Your task to perform on an android device: turn on location history Image 0: 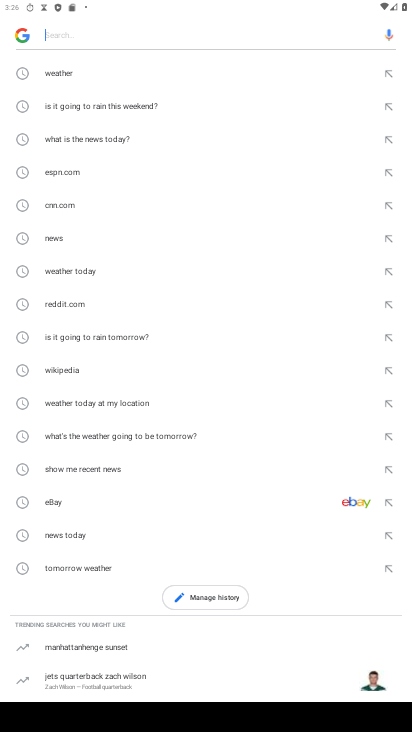
Step 0: press home button
Your task to perform on an android device: turn on location history Image 1: 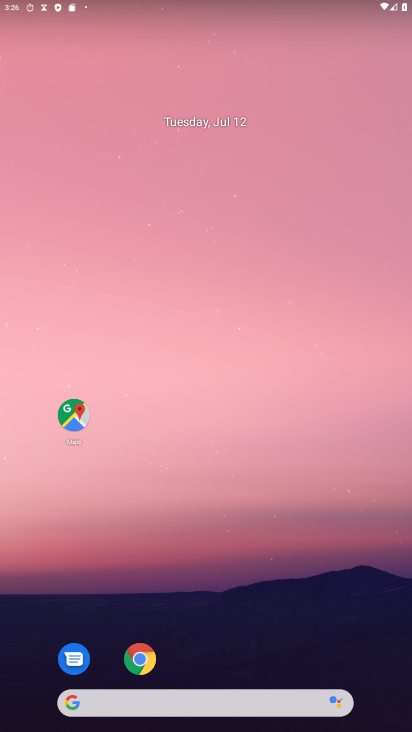
Step 1: drag from (320, 667) to (242, 212)
Your task to perform on an android device: turn on location history Image 2: 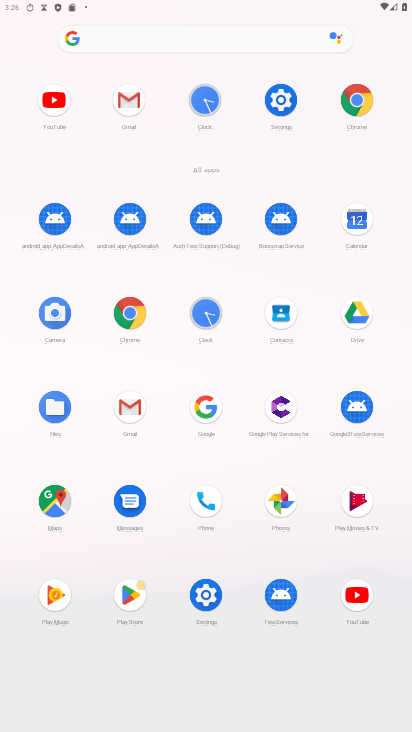
Step 2: click (62, 498)
Your task to perform on an android device: turn on location history Image 3: 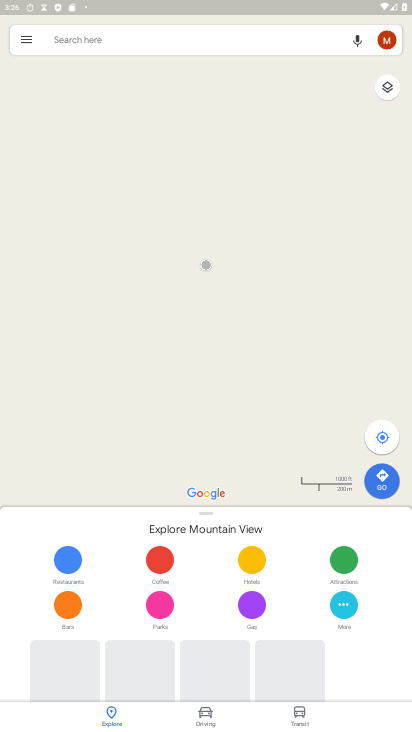
Step 3: click (27, 34)
Your task to perform on an android device: turn on location history Image 4: 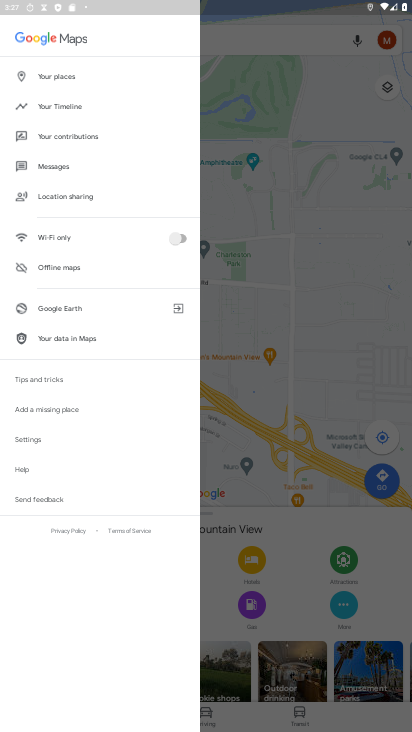
Step 4: click (97, 101)
Your task to perform on an android device: turn on location history Image 5: 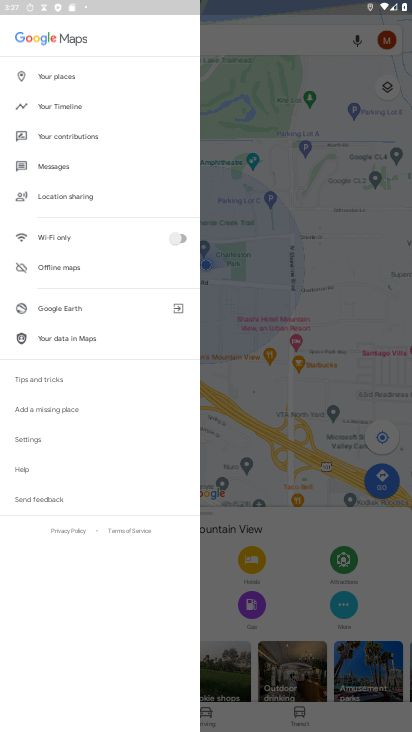
Step 5: click (64, 106)
Your task to perform on an android device: turn on location history Image 6: 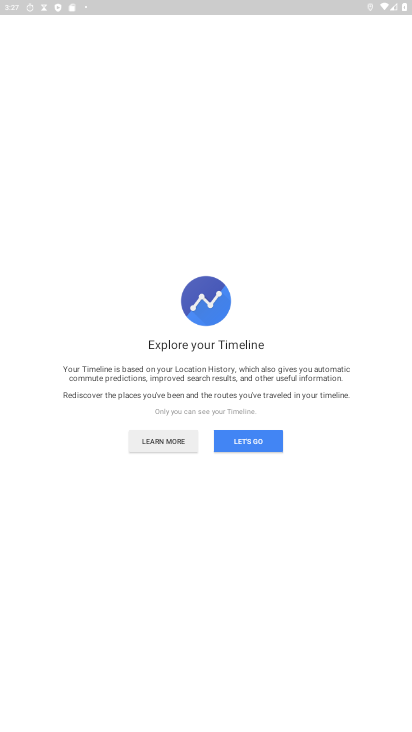
Step 6: click (265, 435)
Your task to perform on an android device: turn on location history Image 7: 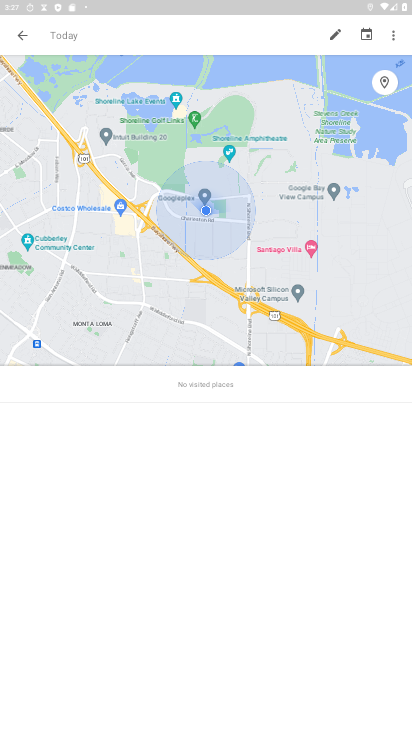
Step 7: click (392, 28)
Your task to perform on an android device: turn on location history Image 8: 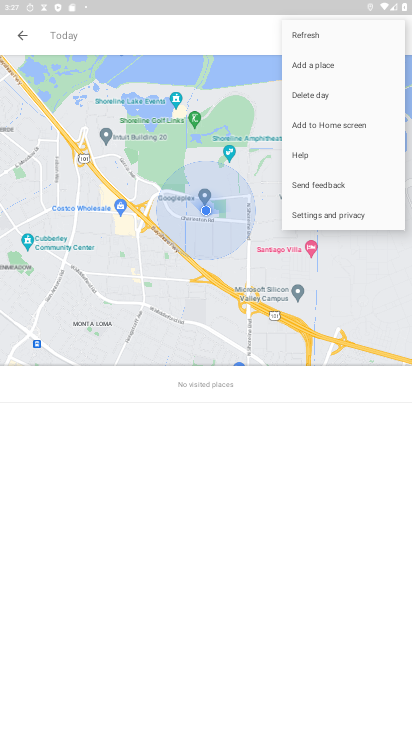
Step 8: click (344, 216)
Your task to perform on an android device: turn on location history Image 9: 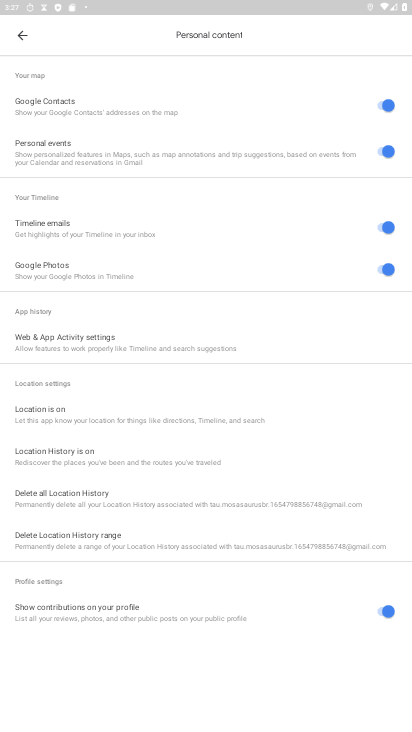
Step 9: task complete